Your task to perform on an android device: turn on data saver in the chrome app Image 0: 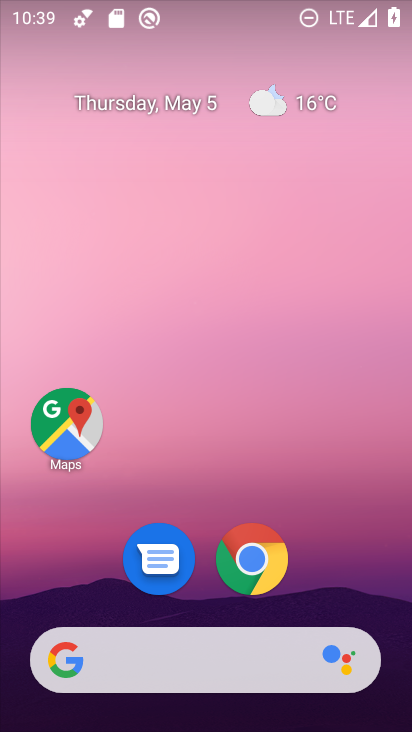
Step 0: drag from (388, 632) to (345, 105)
Your task to perform on an android device: turn on data saver in the chrome app Image 1: 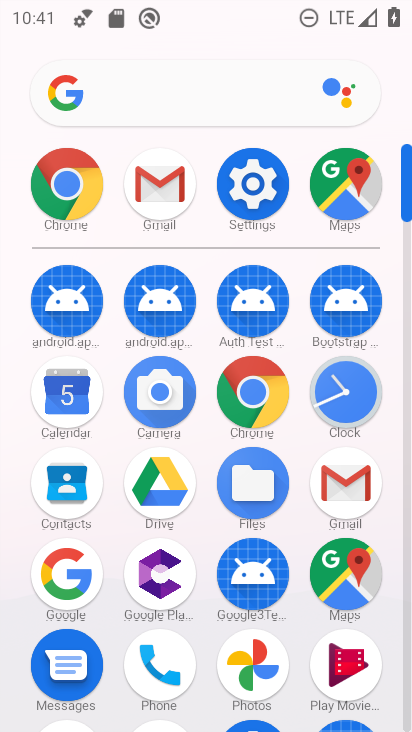
Step 1: click (251, 425)
Your task to perform on an android device: turn on data saver in the chrome app Image 2: 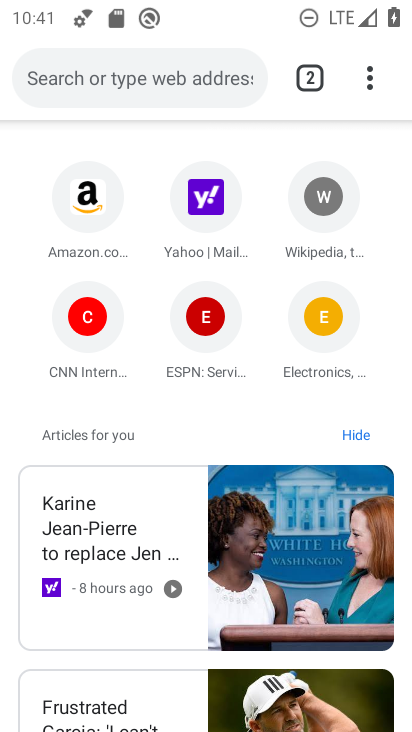
Step 2: click (371, 74)
Your task to perform on an android device: turn on data saver in the chrome app Image 3: 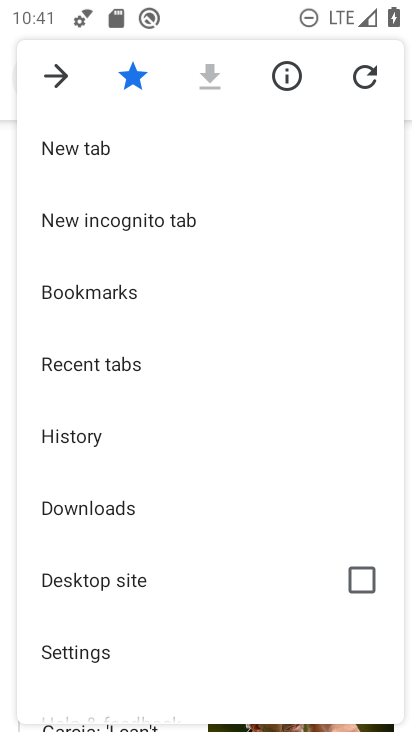
Step 3: click (154, 656)
Your task to perform on an android device: turn on data saver in the chrome app Image 4: 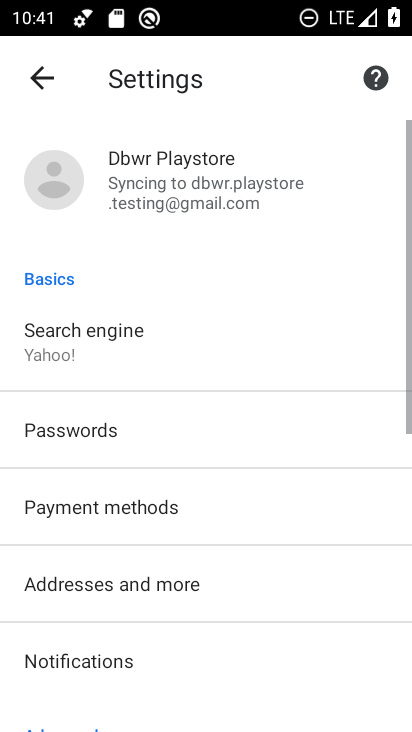
Step 4: drag from (154, 656) to (199, 221)
Your task to perform on an android device: turn on data saver in the chrome app Image 5: 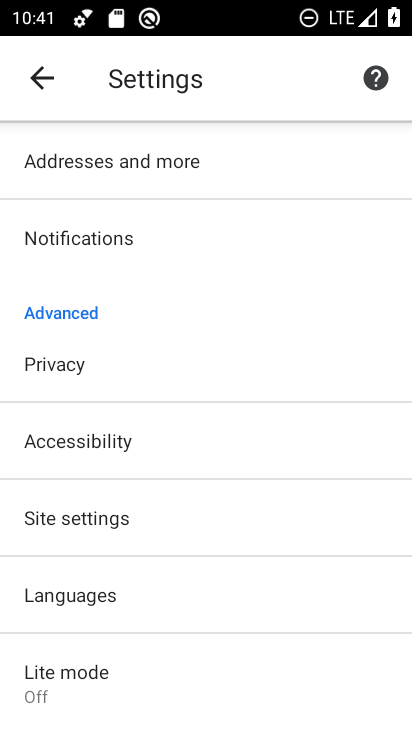
Step 5: click (129, 674)
Your task to perform on an android device: turn on data saver in the chrome app Image 6: 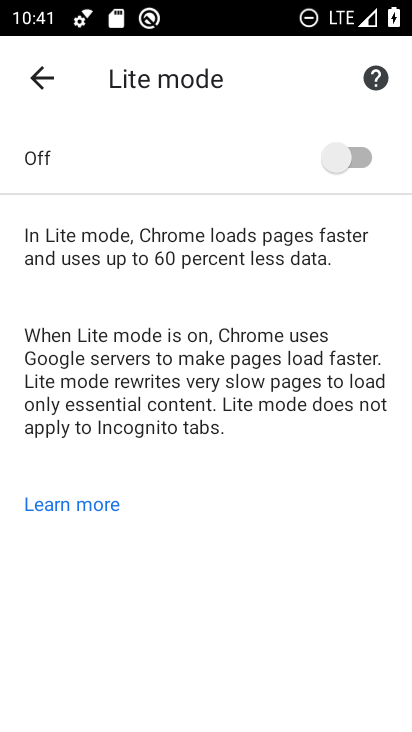
Step 6: click (349, 166)
Your task to perform on an android device: turn on data saver in the chrome app Image 7: 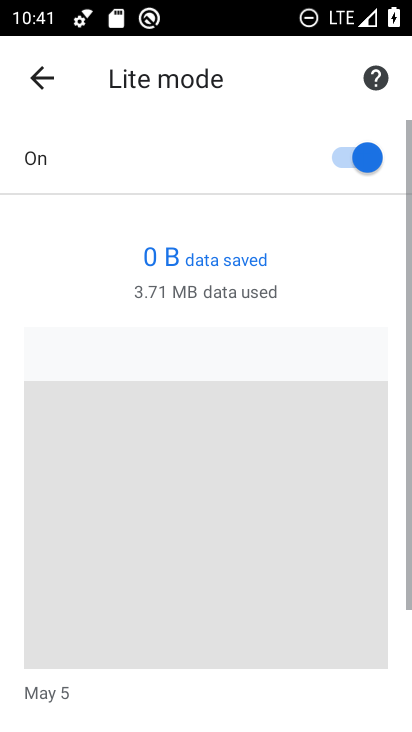
Step 7: task complete